Your task to perform on an android device: Open location settings Image 0: 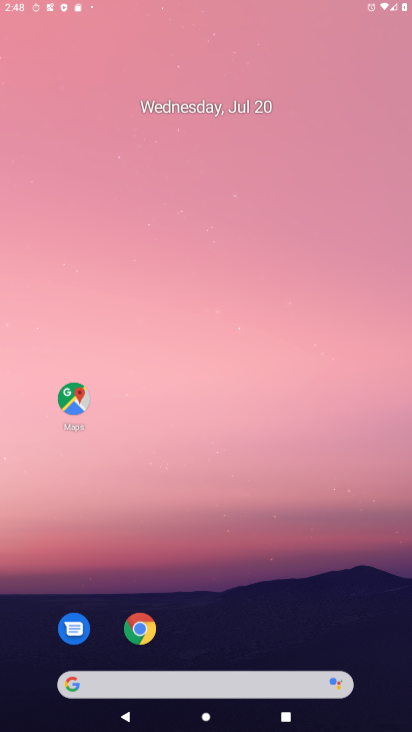
Step 0: press home button
Your task to perform on an android device: Open location settings Image 1: 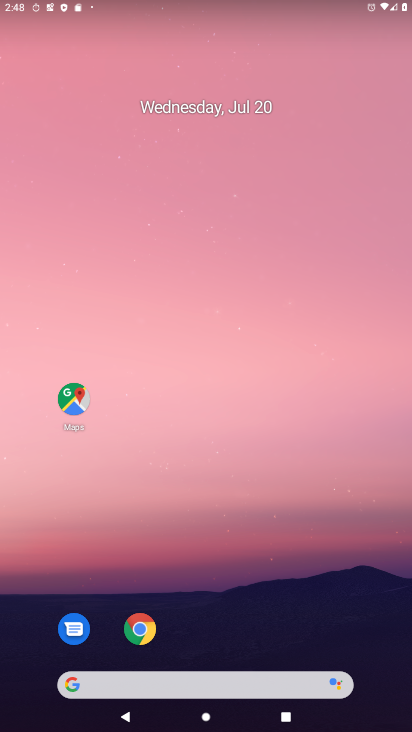
Step 1: drag from (205, 648) to (230, 87)
Your task to perform on an android device: Open location settings Image 2: 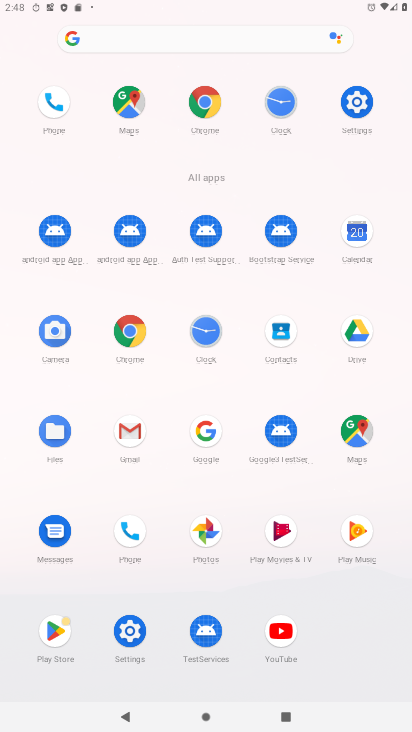
Step 2: click (125, 626)
Your task to perform on an android device: Open location settings Image 3: 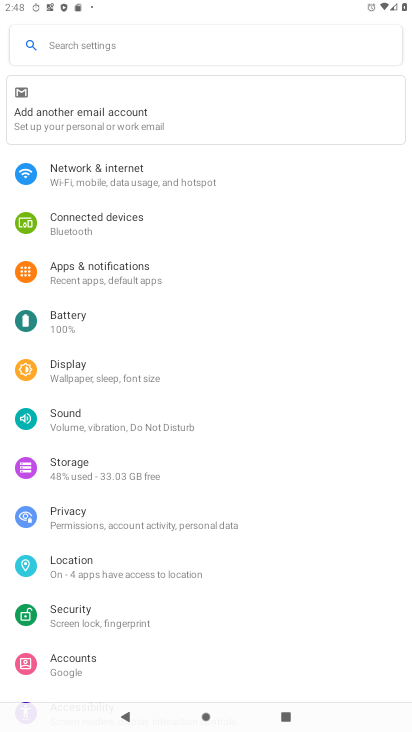
Step 3: click (107, 563)
Your task to perform on an android device: Open location settings Image 4: 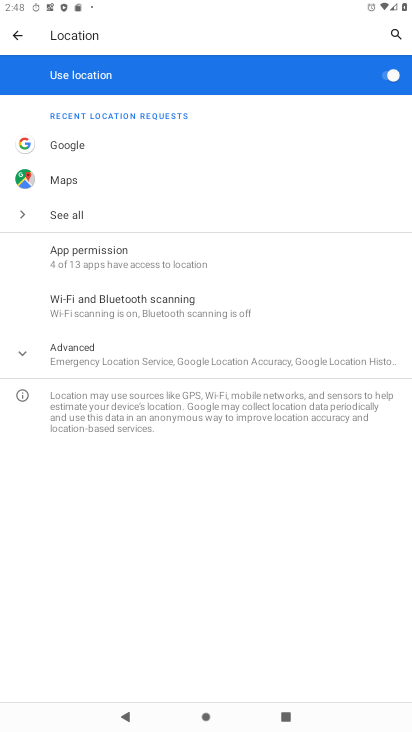
Step 4: click (26, 353)
Your task to perform on an android device: Open location settings Image 5: 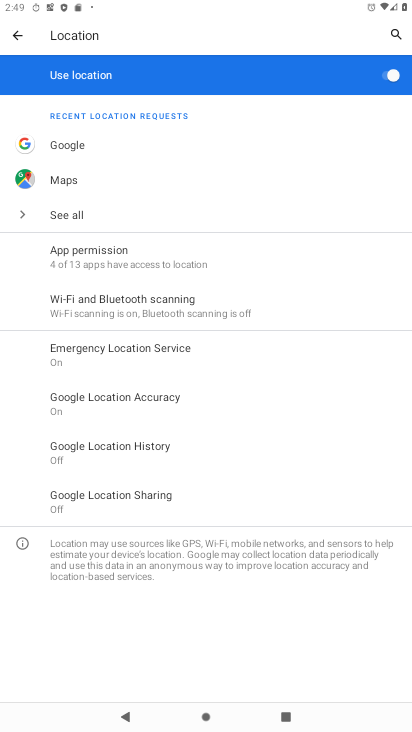
Step 5: task complete